Your task to perform on an android device: Go to privacy settings Image 0: 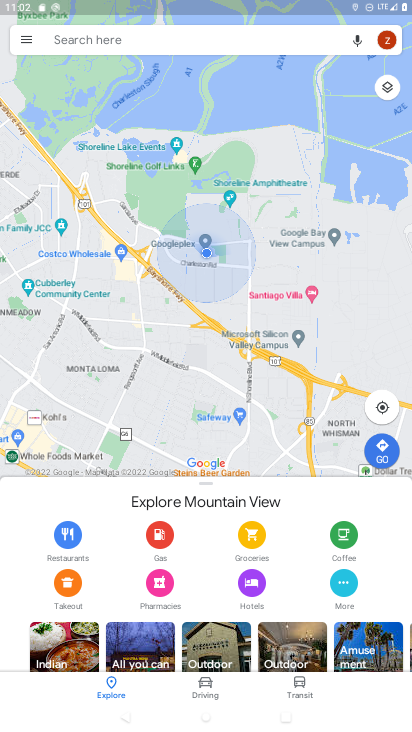
Step 0: press home button
Your task to perform on an android device: Go to privacy settings Image 1: 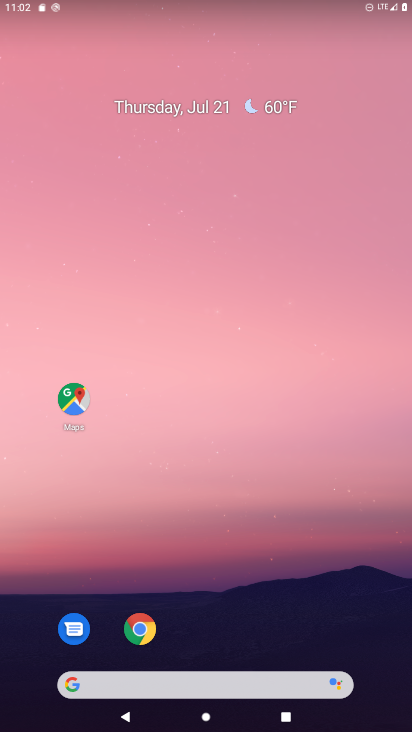
Step 1: drag from (303, 484) to (304, 65)
Your task to perform on an android device: Go to privacy settings Image 2: 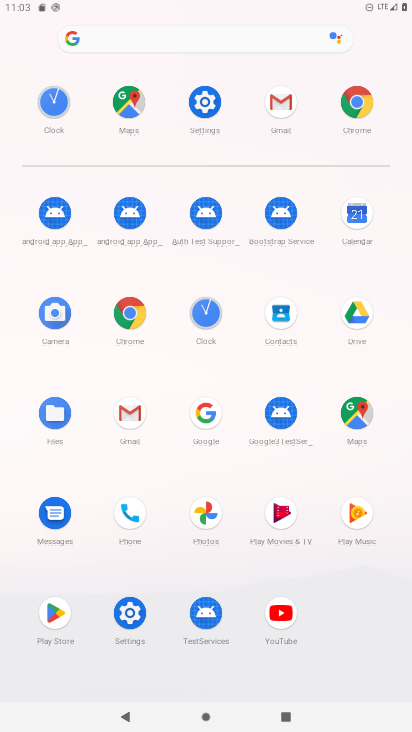
Step 2: click (205, 101)
Your task to perform on an android device: Go to privacy settings Image 3: 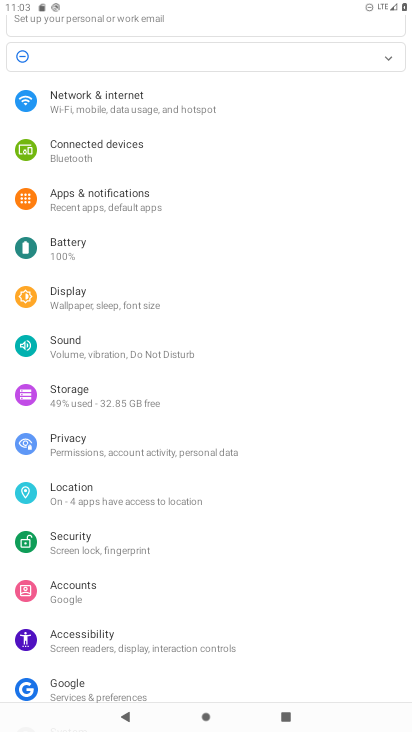
Step 3: click (75, 443)
Your task to perform on an android device: Go to privacy settings Image 4: 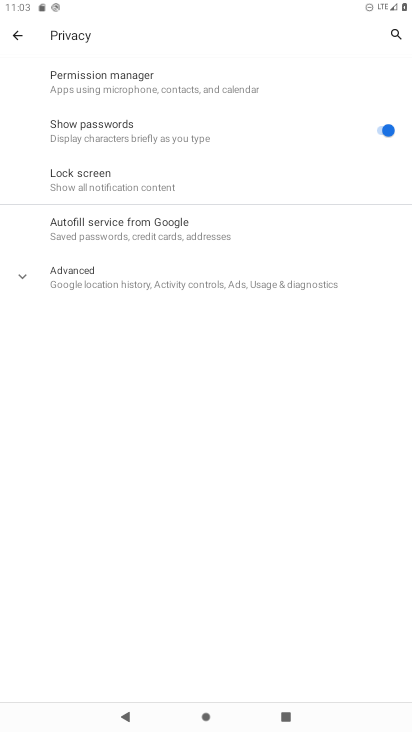
Step 4: task complete